Your task to perform on an android device: turn off wifi Image 0: 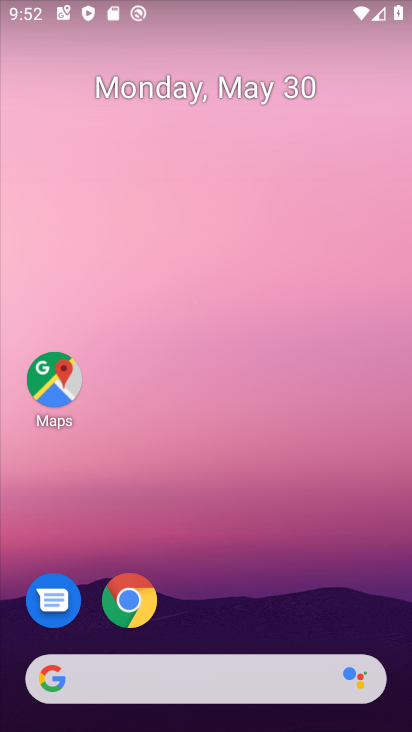
Step 0: drag from (214, 2) to (180, 458)
Your task to perform on an android device: turn off wifi Image 1: 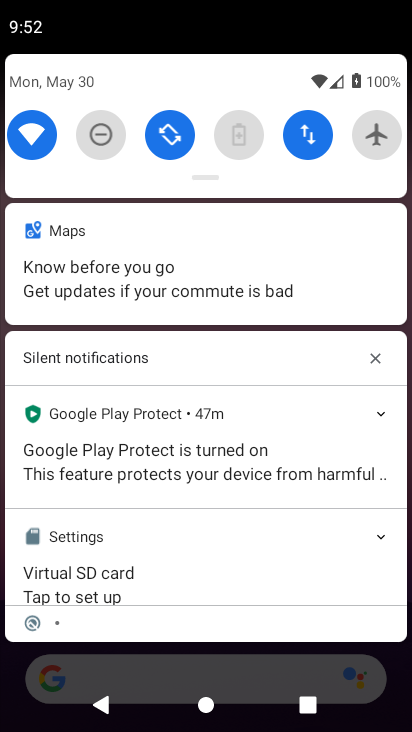
Step 1: click (28, 141)
Your task to perform on an android device: turn off wifi Image 2: 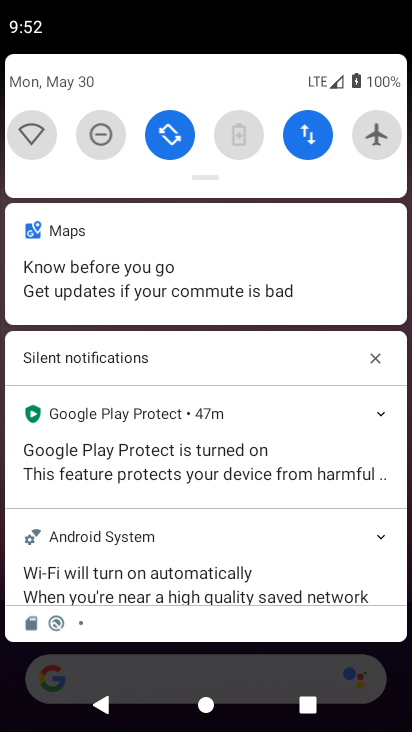
Step 2: task complete